Your task to perform on an android device: set default search engine in the chrome app Image 0: 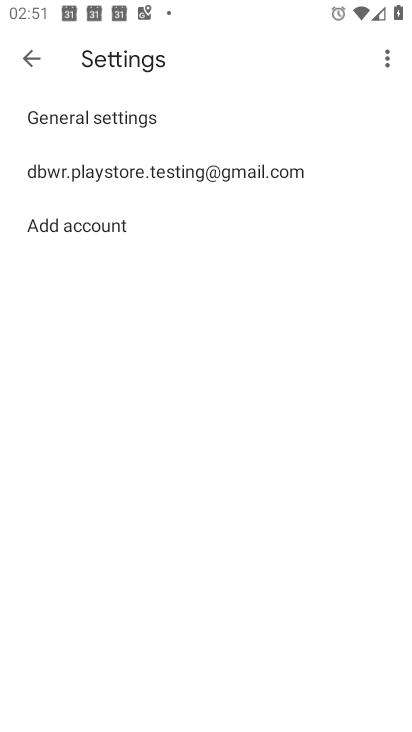
Step 0: press home button
Your task to perform on an android device: set default search engine in the chrome app Image 1: 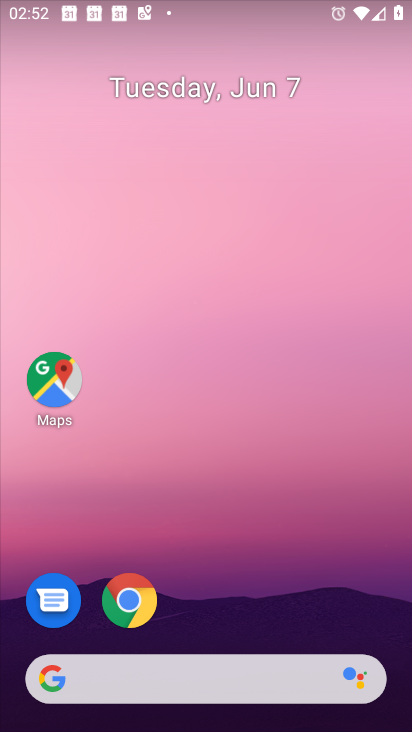
Step 1: click (128, 603)
Your task to perform on an android device: set default search engine in the chrome app Image 2: 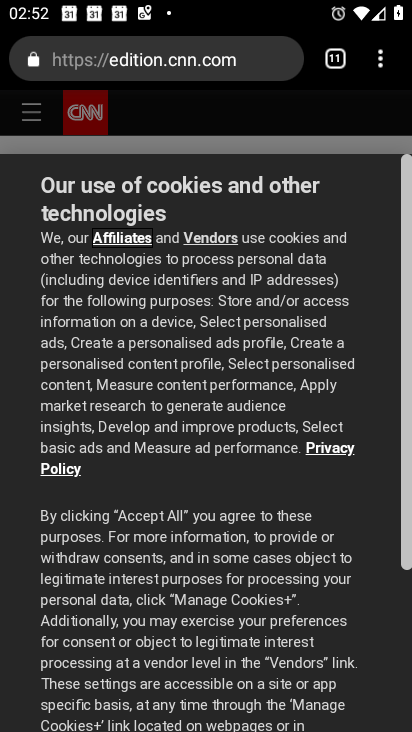
Step 2: click (383, 63)
Your task to perform on an android device: set default search engine in the chrome app Image 3: 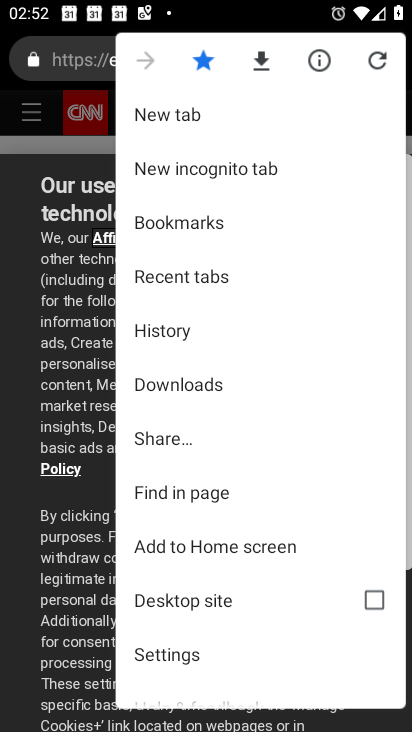
Step 3: click (164, 649)
Your task to perform on an android device: set default search engine in the chrome app Image 4: 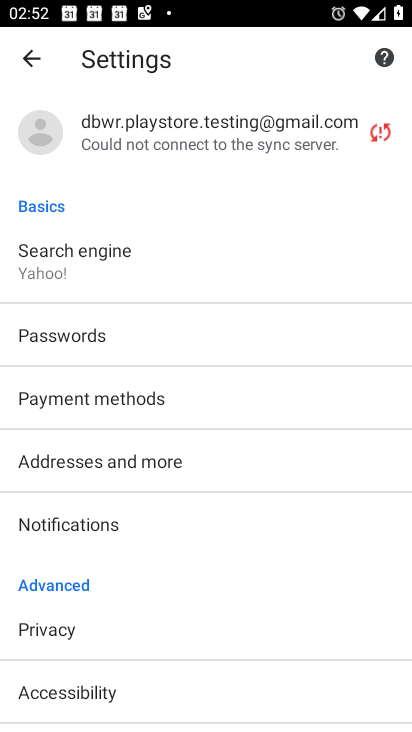
Step 4: click (79, 257)
Your task to perform on an android device: set default search engine in the chrome app Image 5: 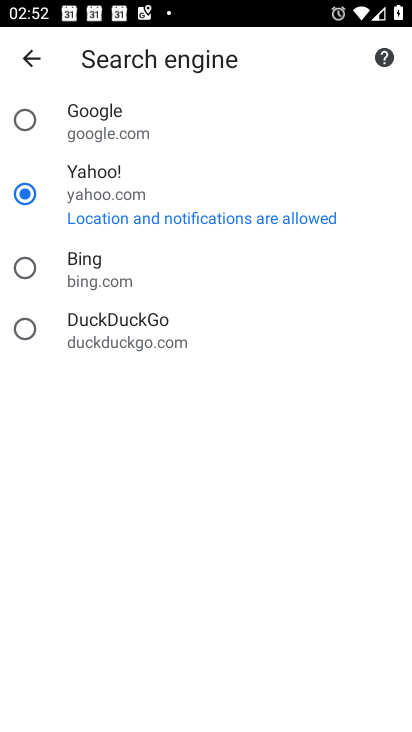
Step 5: click (21, 115)
Your task to perform on an android device: set default search engine in the chrome app Image 6: 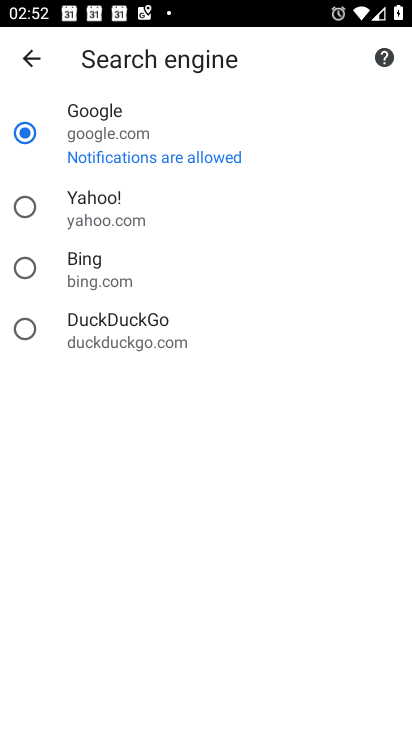
Step 6: task complete